Your task to perform on an android device: Open Reddit.com Image 0: 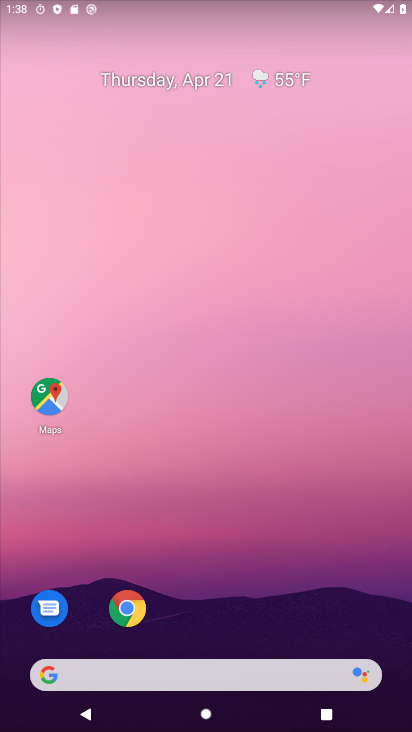
Step 0: click (134, 606)
Your task to perform on an android device: Open Reddit.com Image 1: 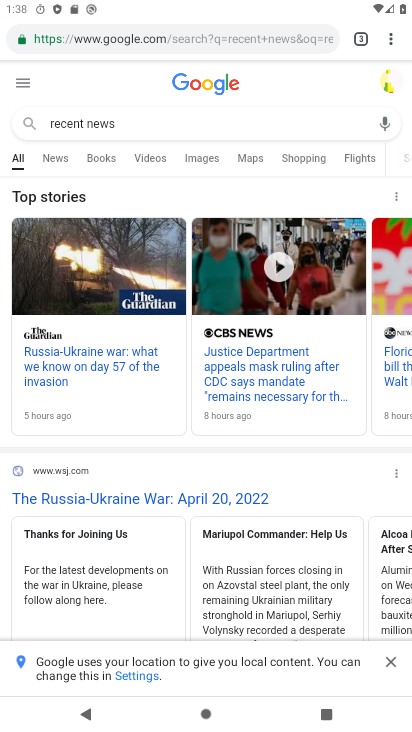
Step 1: click (212, 118)
Your task to perform on an android device: Open Reddit.com Image 2: 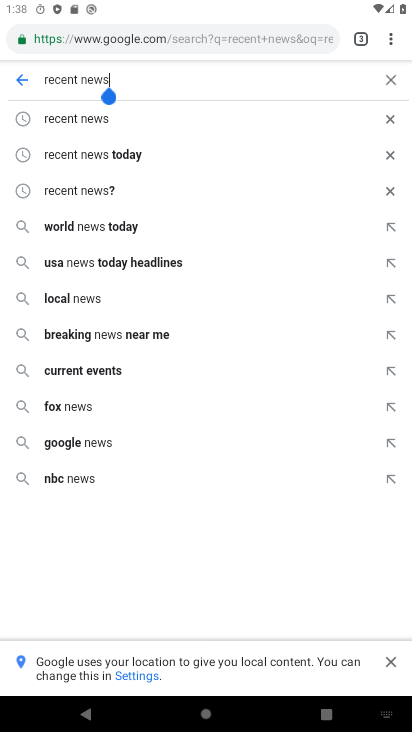
Step 2: click (390, 79)
Your task to perform on an android device: Open Reddit.com Image 3: 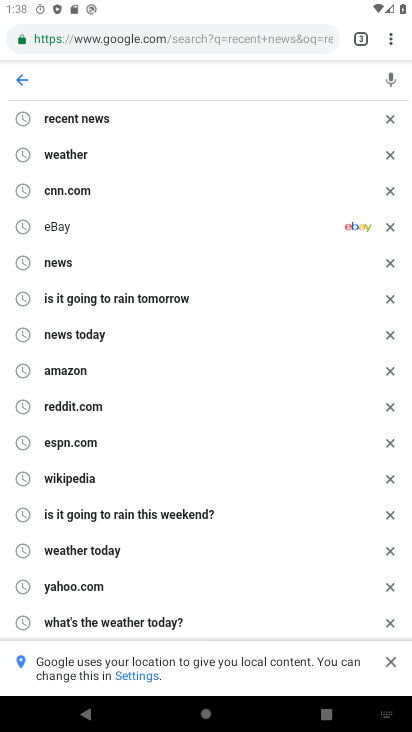
Step 3: click (59, 405)
Your task to perform on an android device: Open Reddit.com Image 4: 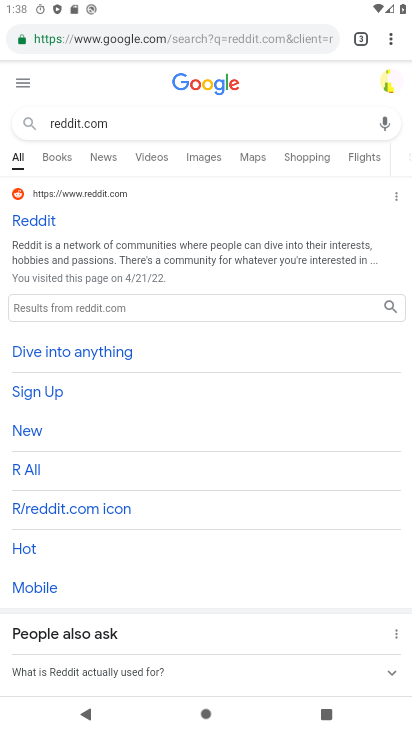
Step 4: click (39, 219)
Your task to perform on an android device: Open Reddit.com Image 5: 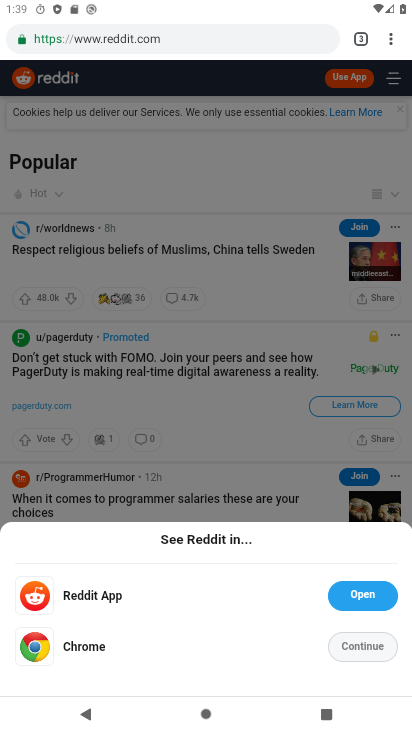
Step 5: task complete